Your task to perform on an android device: What is the recent news? Image 0: 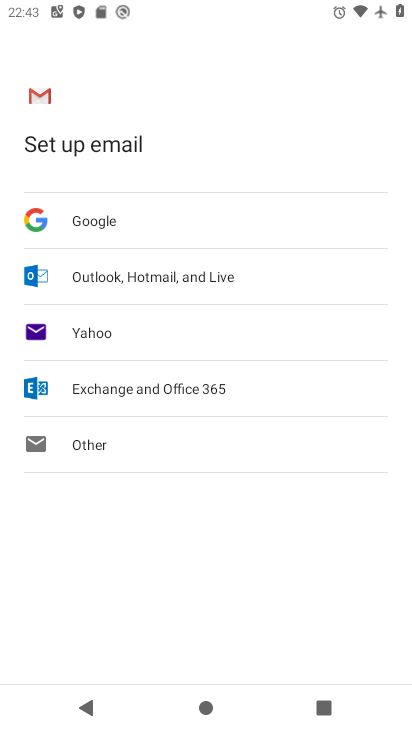
Step 0: press home button
Your task to perform on an android device: What is the recent news? Image 1: 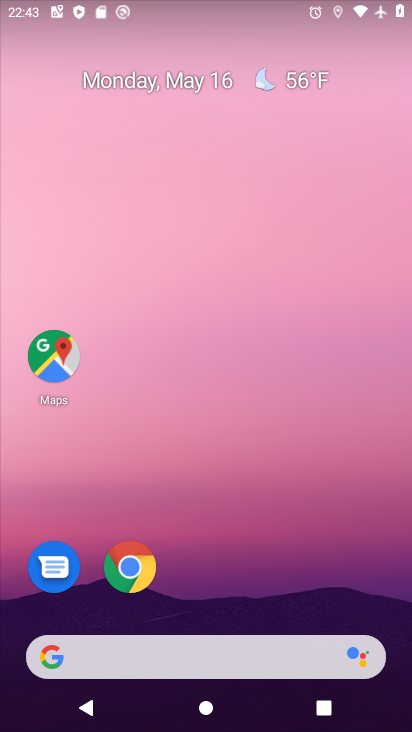
Step 1: click (134, 565)
Your task to perform on an android device: What is the recent news? Image 2: 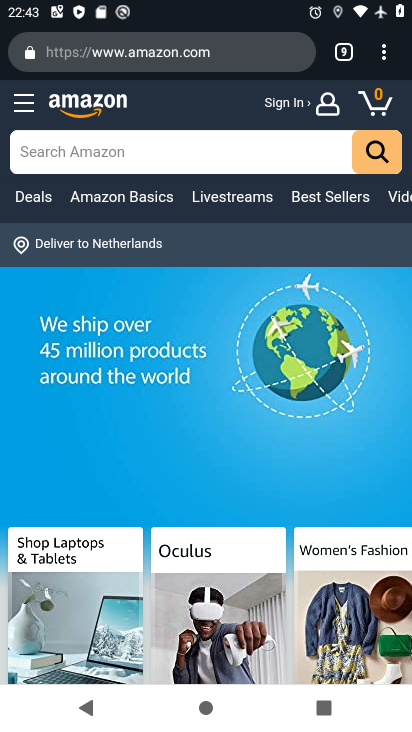
Step 2: click (384, 45)
Your task to perform on an android device: What is the recent news? Image 3: 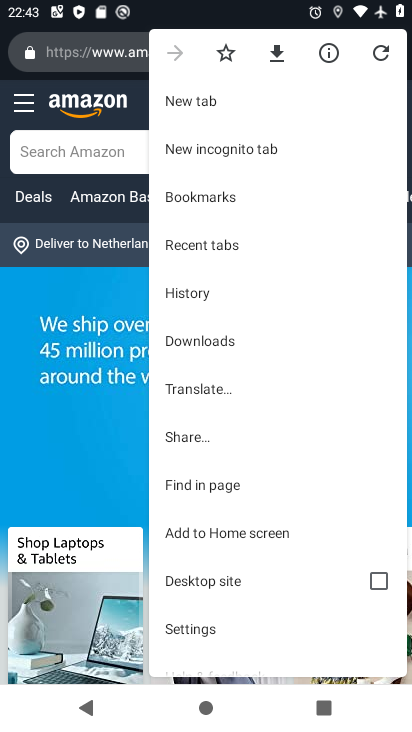
Step 3: click (212, 104)
Your task to perform on an android device: What is the recent news? Image 4: 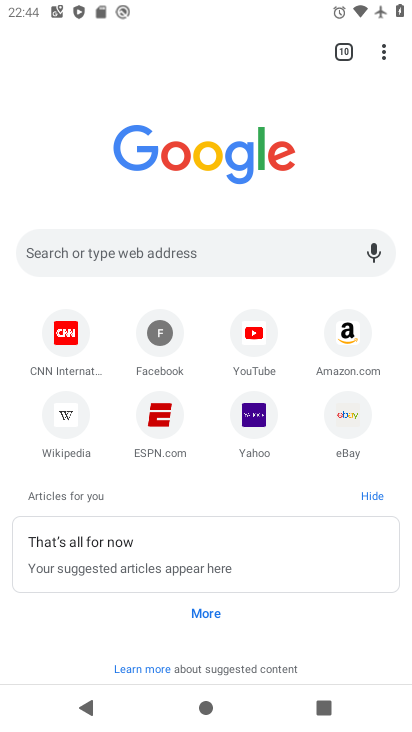
Step 4: click (209, 251)
Your task to perform on an android device: What is the recent news? Image 5: 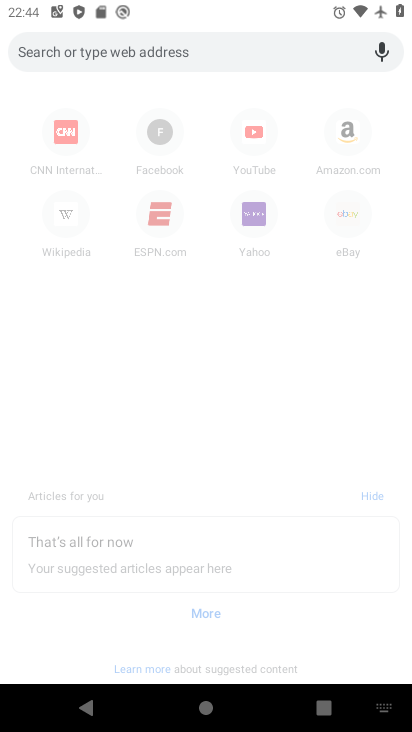
Step 5: type "What is the recent news?"
Your task to perform on an android device: What is the recent news? Image 6: 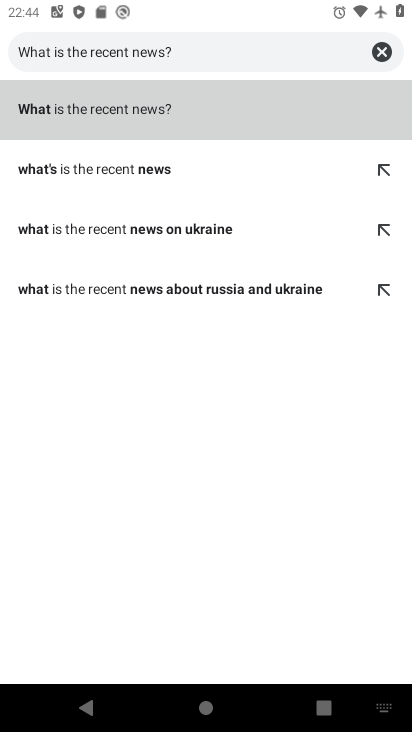
Step 6: click (255, 115)
Your task to perform on an android device: What is the recent news? Image 7: 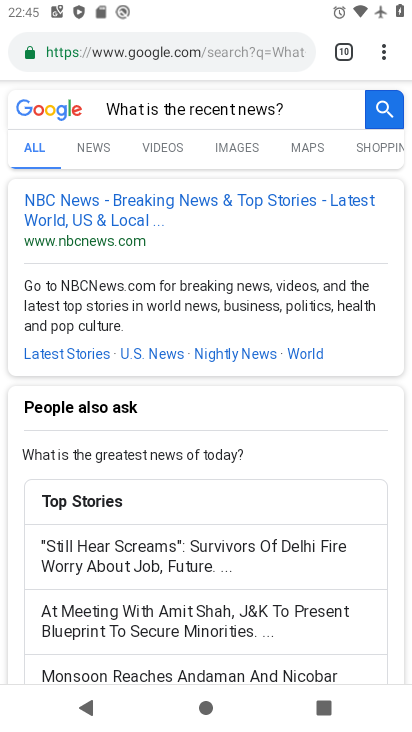
Step 7: task complete